Your task to perform on an android device: find photos in the google photos app Image 0: 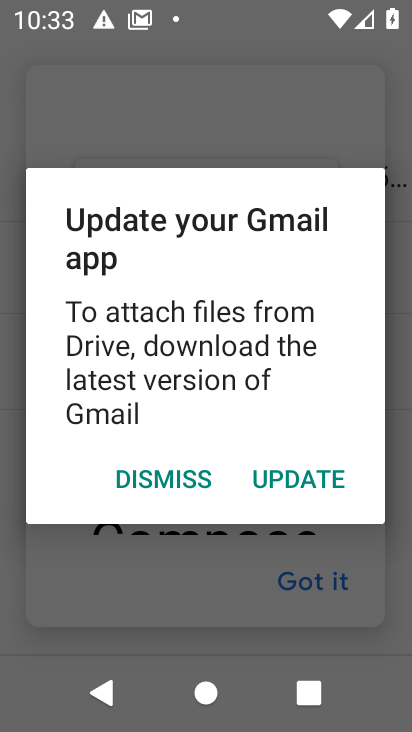
Step 0: click (155, 474)
Your task to perform on an android device: find photos in the google photos app Image 1: 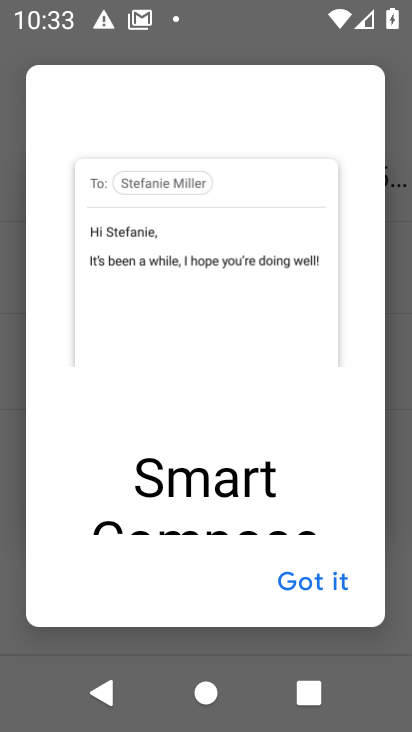
Step 1: press home button
Your task to perform on an android device: find photos in the google photos app Image 2: 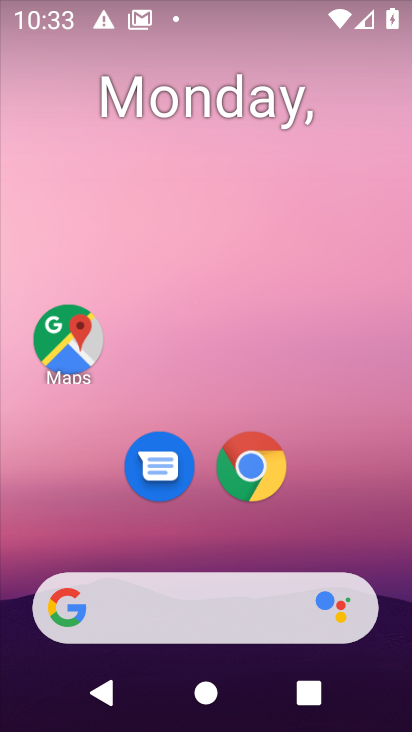
Step 2: drag from (185, 530) to (161, 42)
Your task to perform on an android device: find photos in the google photos app Image 3: 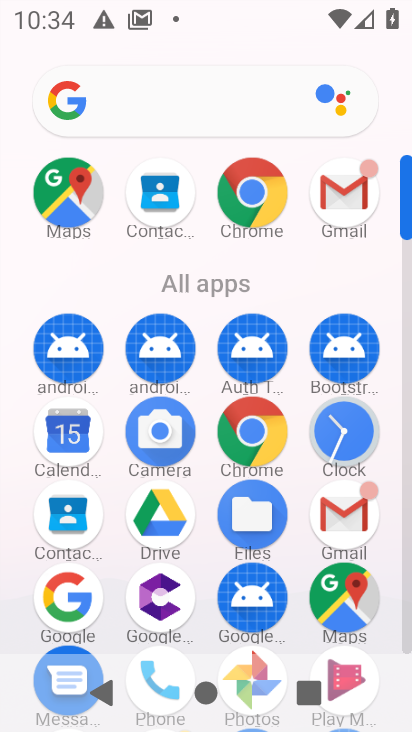
Step 3: drag from (292, 610) to (217, 70)
Your task to perform on an android device: find photos in the google photos app Image 4: 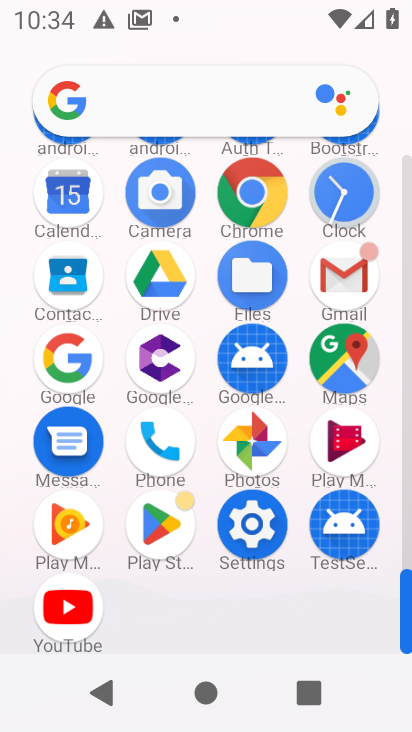
Step 4: click (249, 431)
Your task to perform on an android device: find photos in the google photos app Image 5: 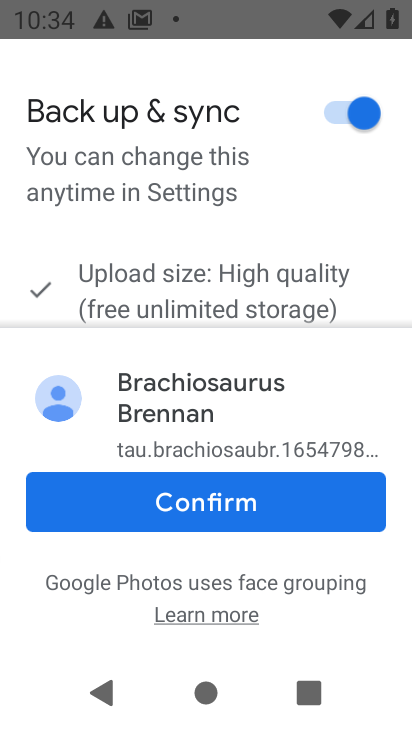
Step 5: click (273, 506)
Your task to perform on an android device: find photos in the google photos app Image 6: 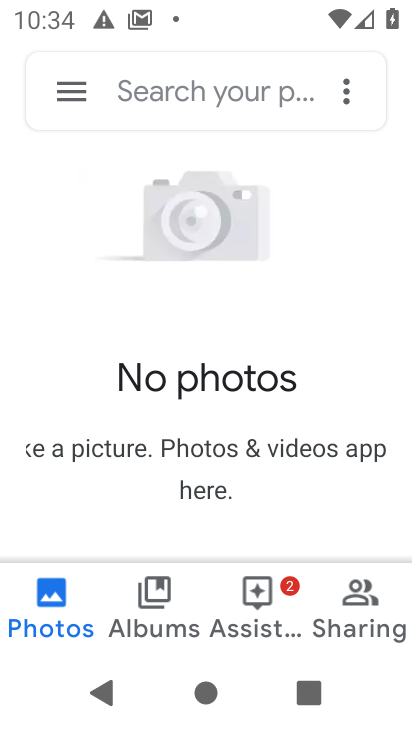
Step 6: click (150, 595)
Your task to perform on an android device: find photos in the google photos app Image 7: 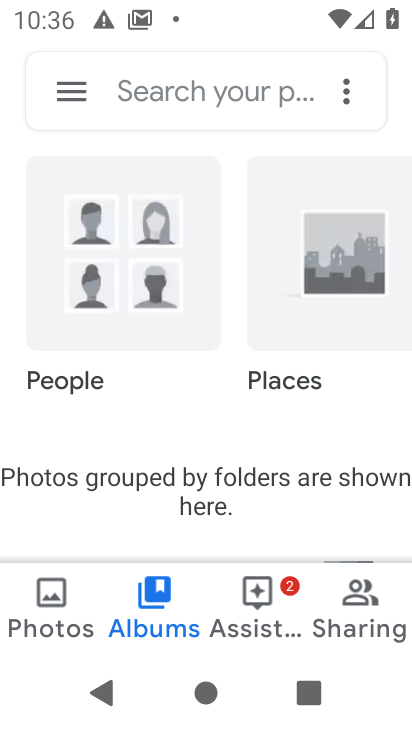
Step 7: click (56, 590)
Your task to perform on an android device: find photos in the google photos app Image 8: 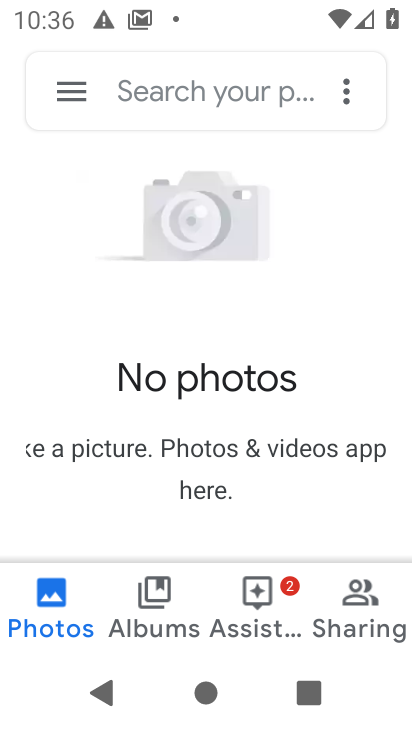
Step 8: task complete